Your task to perform on an android device: turn off priority inbox in the gmail app Image 0: 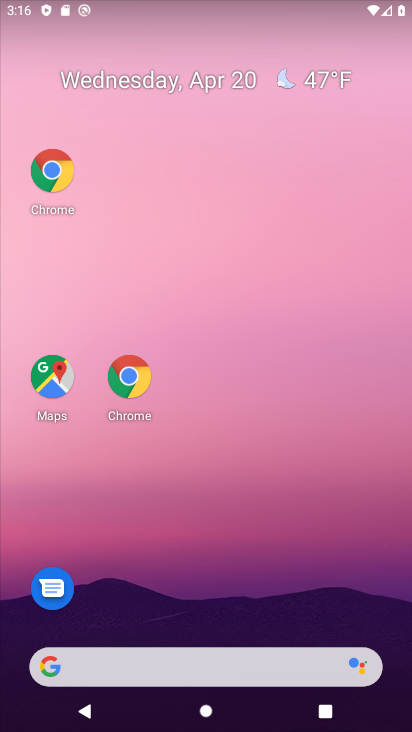
Step 0: drag from (241, 640) to (248, 67)
Your task to perform on an android device: turn off priority inbox in the gmail app Image 1: 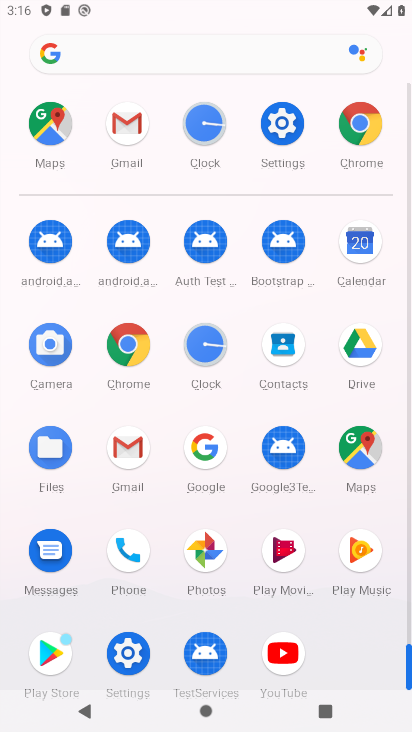
Step 1: click (120, 455)
Your task to perform on an android device: turn off priority inbox in the gmail app Image 2: 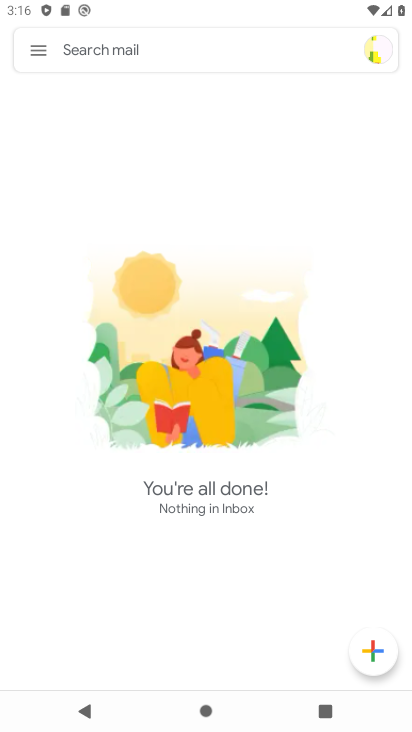
Step 2: click (34, 48)
Your task to perform on an android device: turn off priority inbox in the gmail app Image 3: 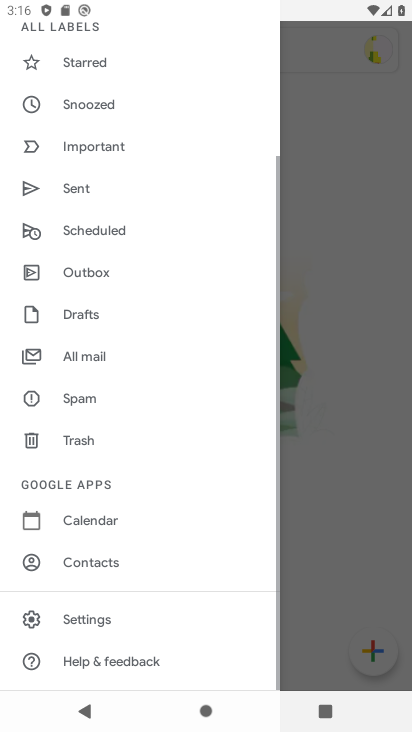
Step 3: drag from (113, 460) to (122, 57)
Your task to perform on an android device: turn off priority inbox in the gmail app Image 4: 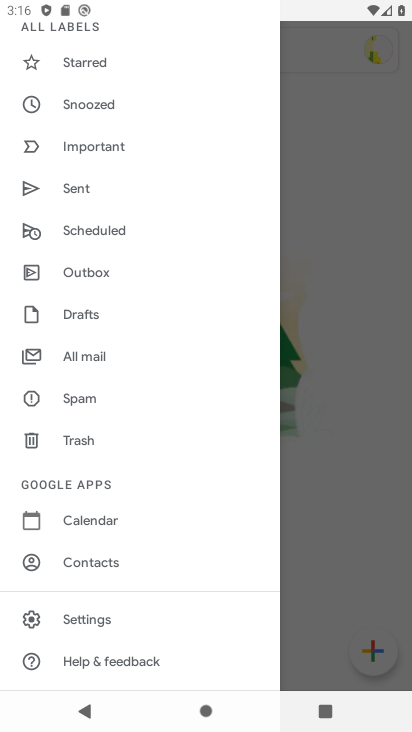
Step 4: click (108, 620)
Your task to perform on an android device: turn off priority inbox in the gmail app Image 5: 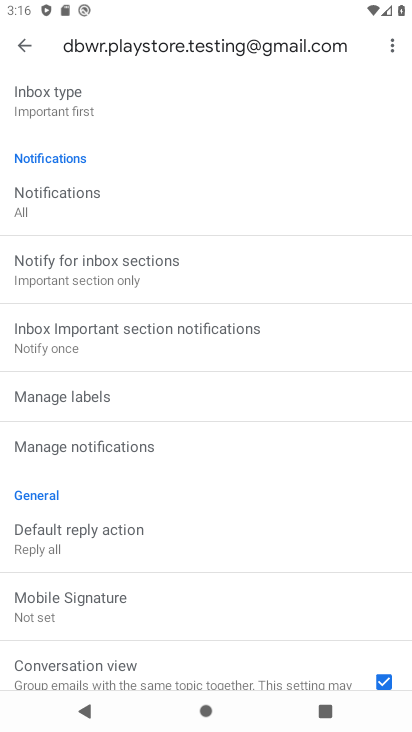
Step 5: drag from (157, 607) to (219, 176)
Your task to perform on an android device: turn off priority inbox in the gmail app Image 6: 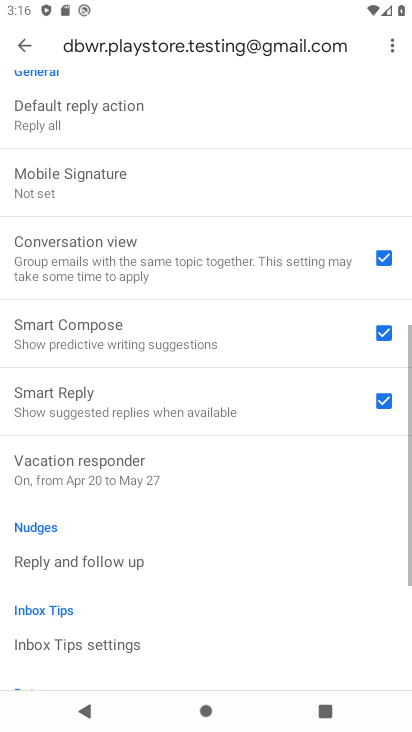
Step 6: drag from (219, 164) to (158, 662)
Your task to perform on an android device: turn off priority inbox in the gmail app Image 7: 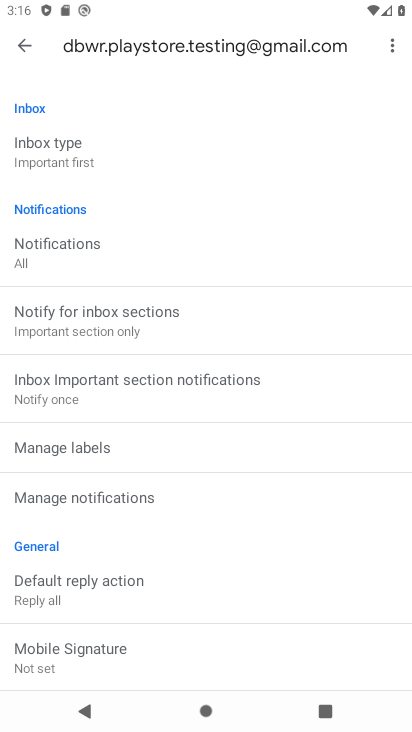
Step 7: click (82, 164)
Your task to perform on an android device: turn off priority inbox in the gmail app Image 8: 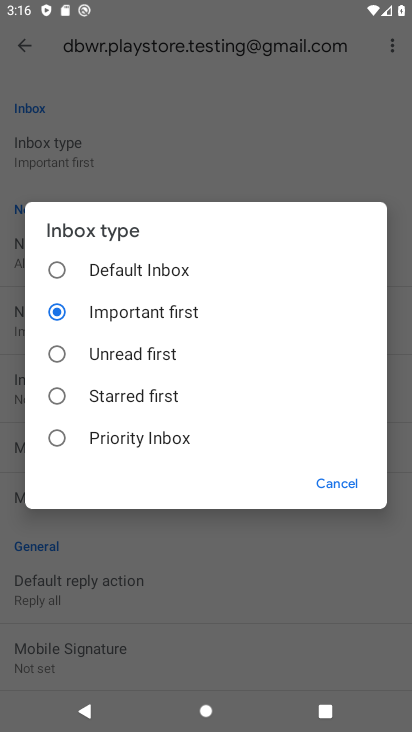
Step 8: click (64, 435)
Your task to perform on an android device: turn off priority inbox in the gmail app Image 9: 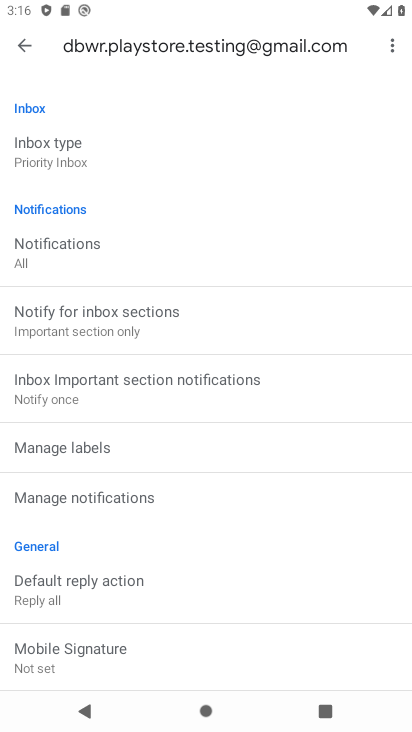
Step 9: click (78, 158)
Your task to perform on an android device: turn off priority inbox in the gmail app Image 10: 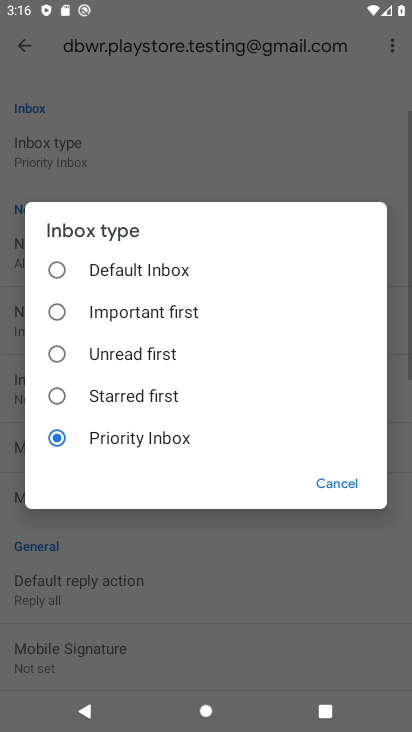
Step 10: click (86, 354)
Your task to perform on an android device: turn off priority inbox in the gmail app Image 11: 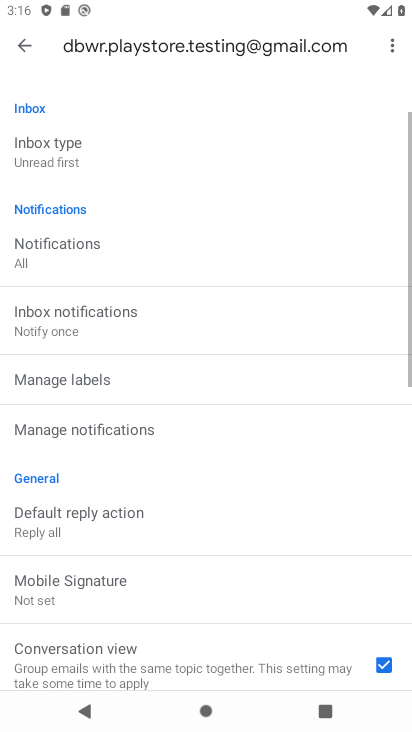
Step 11: task complete